Your task to perform on an android device: Open Google Chrome and click the shortcut for Amazon.com Image 0: 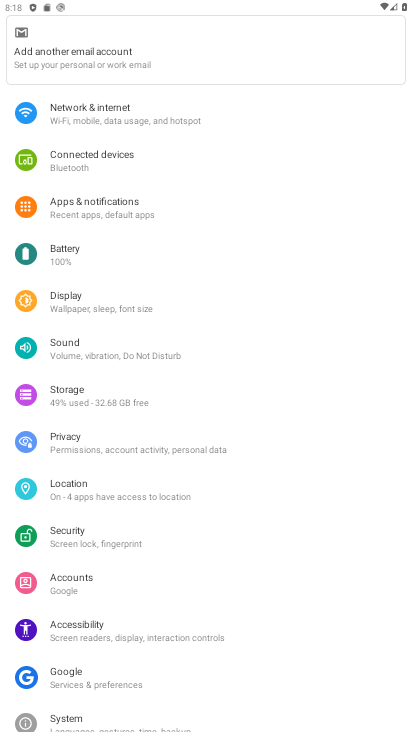
Step 0: press home button
Your task to perform on an android device: Open Google Chrome and click the shortcut for Amazon.com Image 1: 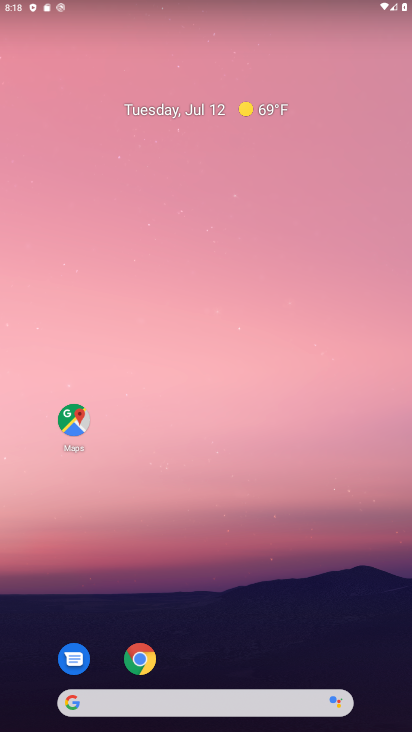
Step 1: click (146, 658)
Your task to perform on an android device: Open Google Chrome and click the shortcut for Amazon.com Image 2: 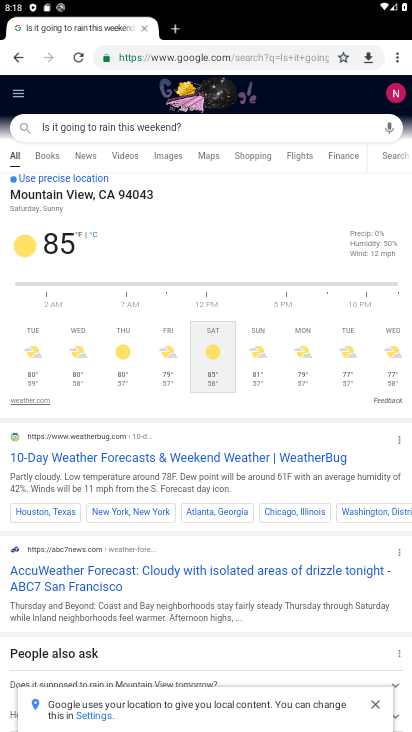
Step 2: click (172, 25)
Your task to perform on an android device: Open Google Chrome and click the shortcut for Amazon.com Image 3: 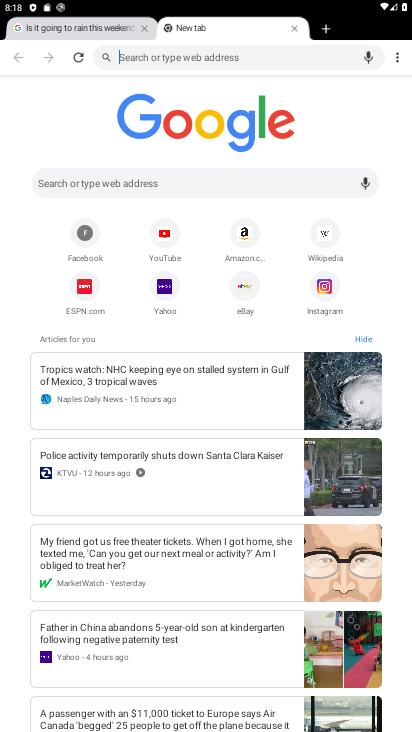
Step 3: click (243, 223)
Your task to perform on an android device: Open Google Chrome and click the shortcut for Amazon.com Image 4: 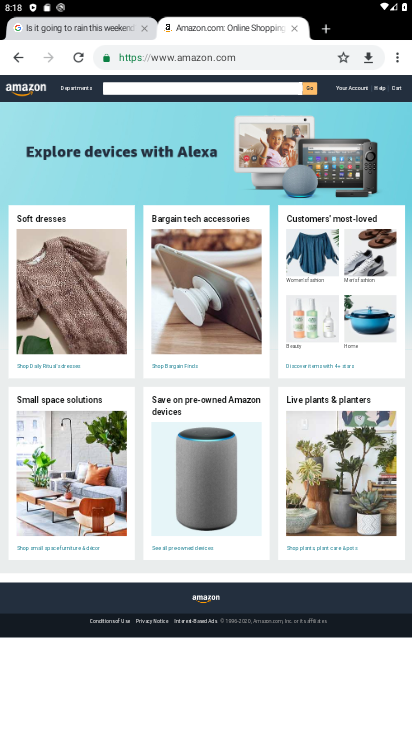
Step 4: task complete